Your task to perform on an android device: turn on the 12-hour format for clock Image 0: 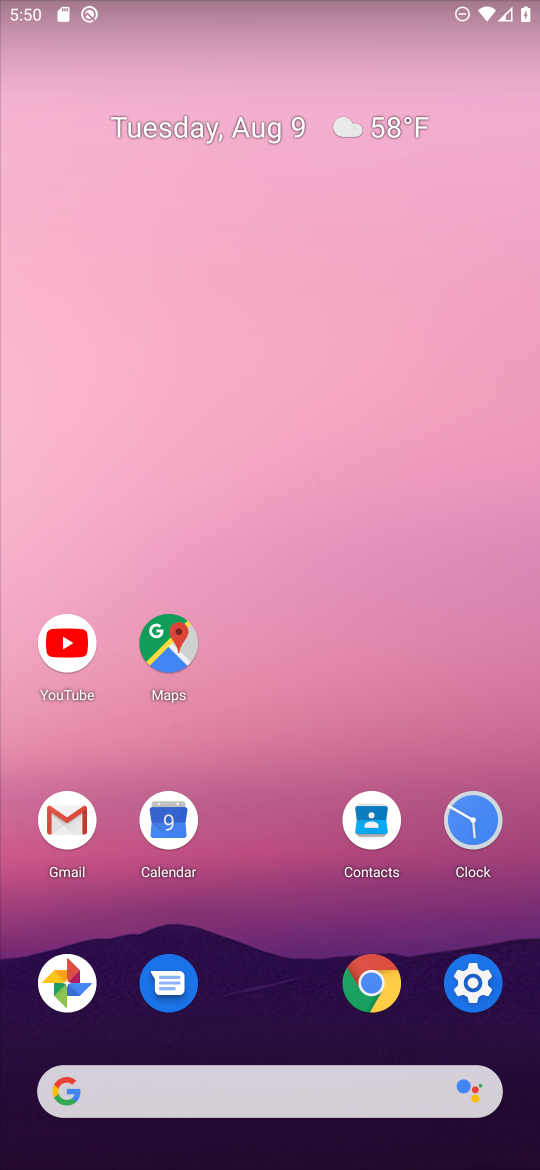
Step 0: click (461, 816)
Your task to perform on an android device: turn on the 12-hour format for clock Image 1: 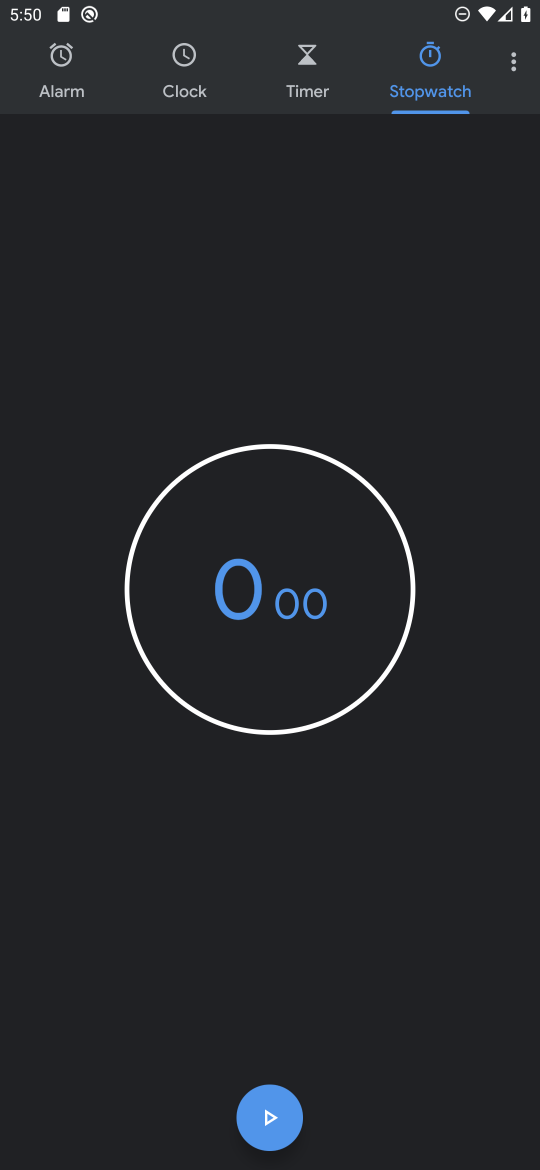
Step 1: click (509, 61)
Your task to perform on an android device: turn on the 12-hour format for clock Image 2: 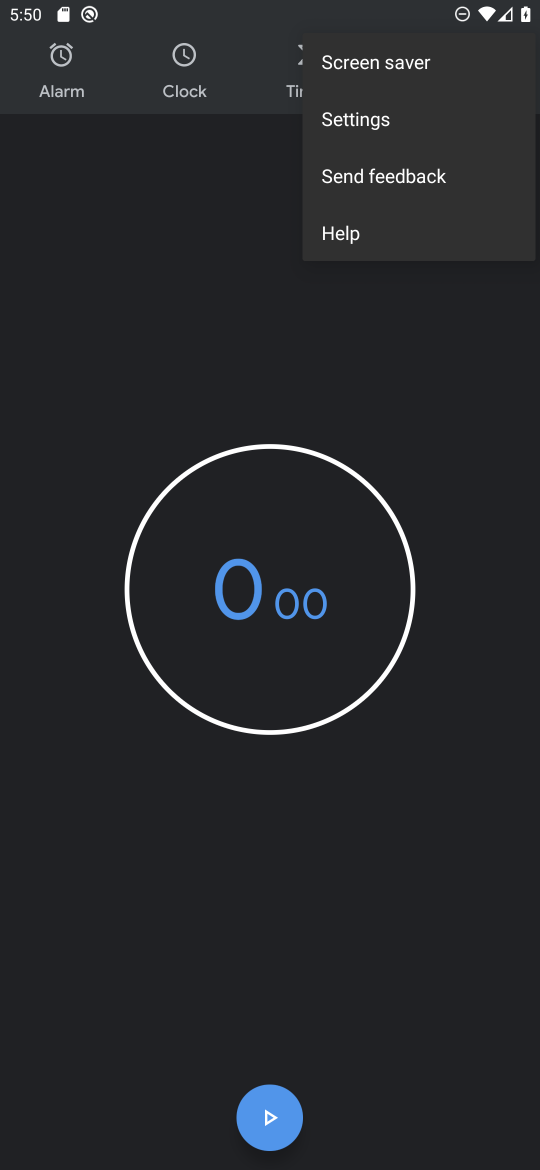
Step 2: click (360, 112)
Your task to perform on an android device: turn on the 12-hour format for clock Image 3: 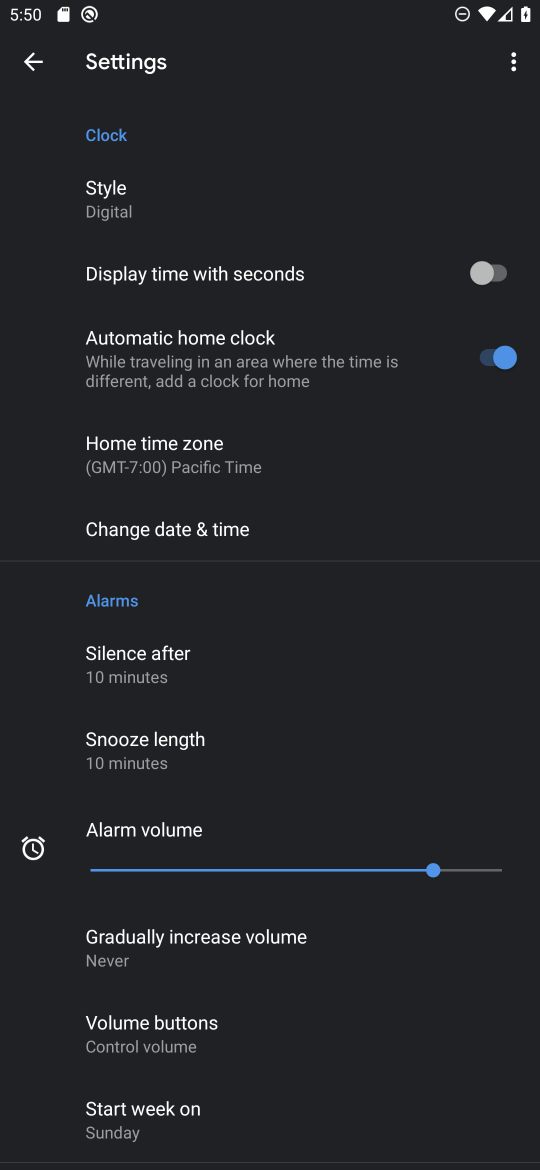
Step 3: click (185, 525)
Your task to perform on an android device: turn on the 12-hour format for clock Image 4: 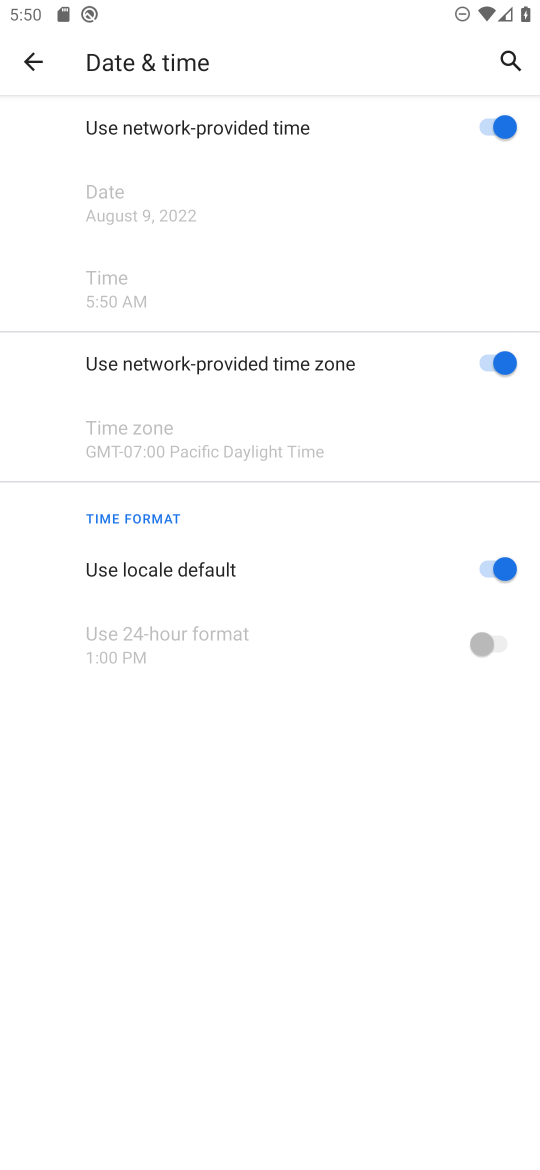
Step 4: task complete